Your task to perform on an android device: open chrome privacy settings Image 0: 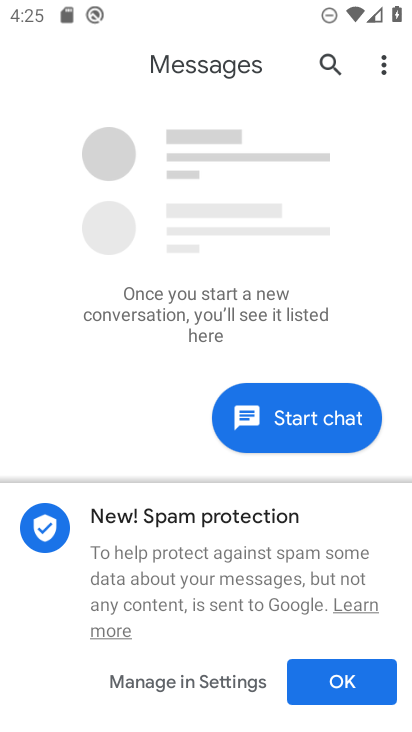
Step 0: press home button
Your task to perform on an android device: open chrome privacy settings Image 1: 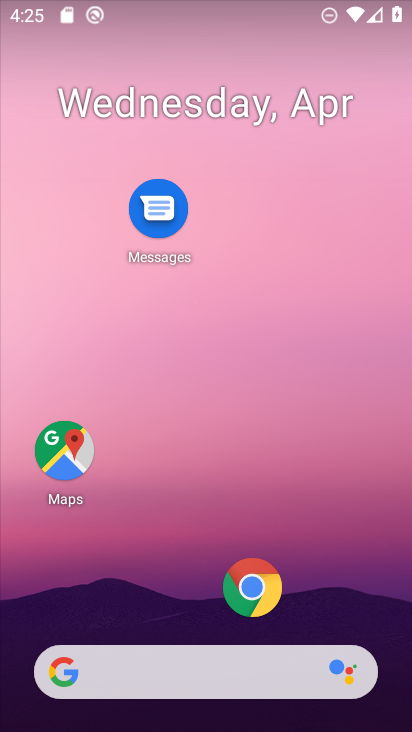
Step 1: click (242, 574)
Your task to perform on an android device: open chrome privacy settings Image 2: 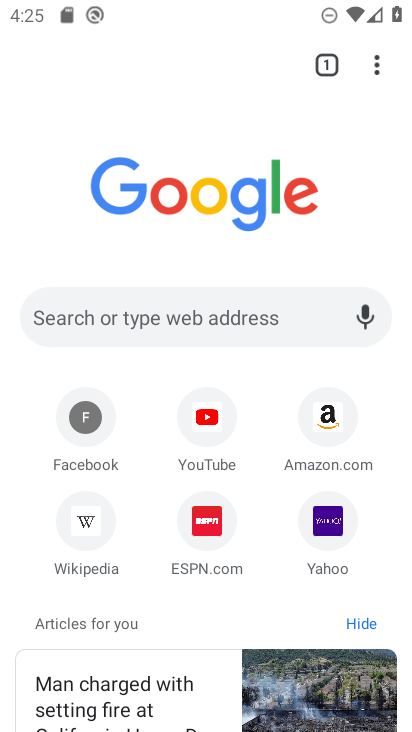
Step 2: click (379, 58)
Your task to perform on an android device: open chrome privacy settings Image 3: 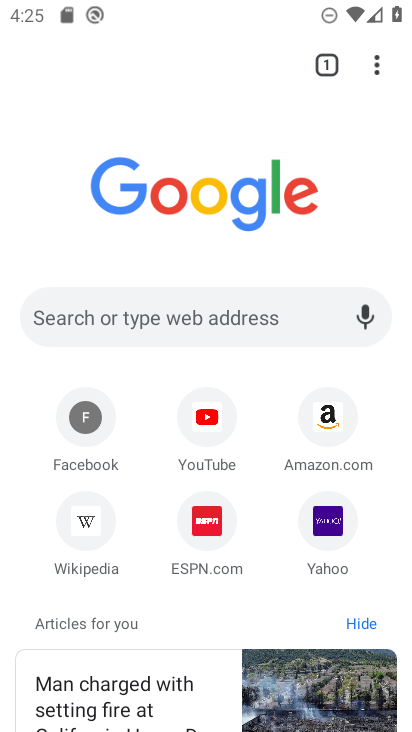
Step 3: click (379, 70)
Your task to perform on an android device: open chrome privacy settings Image 4: 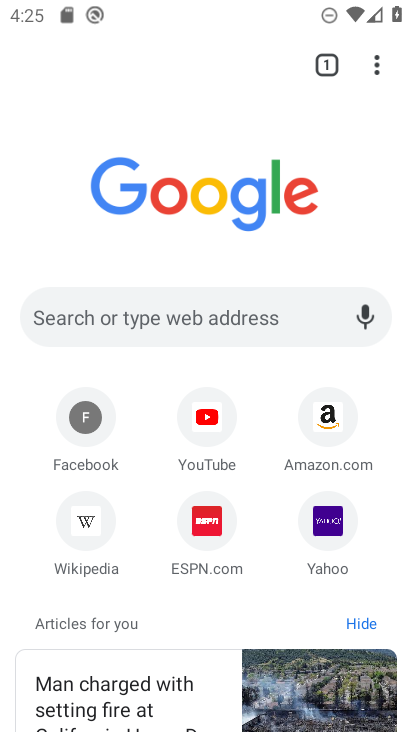
Step 4: click (379, 70)
Your task to perform on an android device: open chrome privacy settings Image 5: 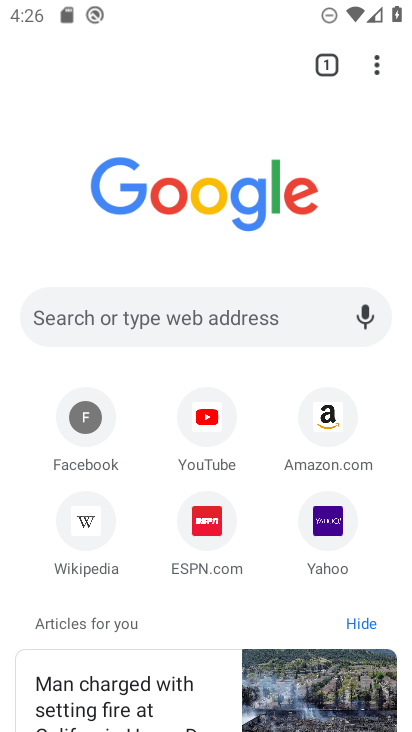
Step 5: drag from (371, 64) to (161, 541)
Your task to perform on an android device: open chrome privacy settings Image 6: 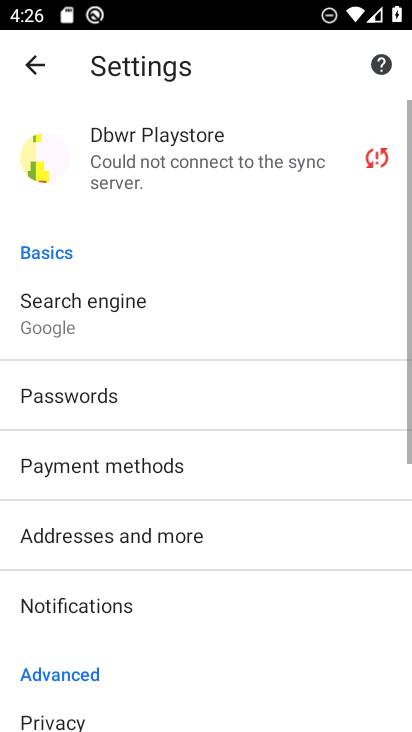
Step 6: drag from (159, 670) to (186, 297)
Your task to perform on an android device: open chrome privacy settings Image 7: 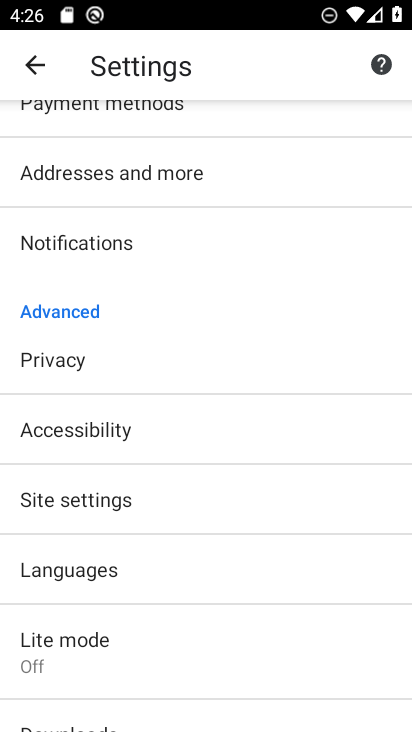
Step 7: click (86, 361)
Your task to perform on an android device: open chrome privacy settings Image 8: 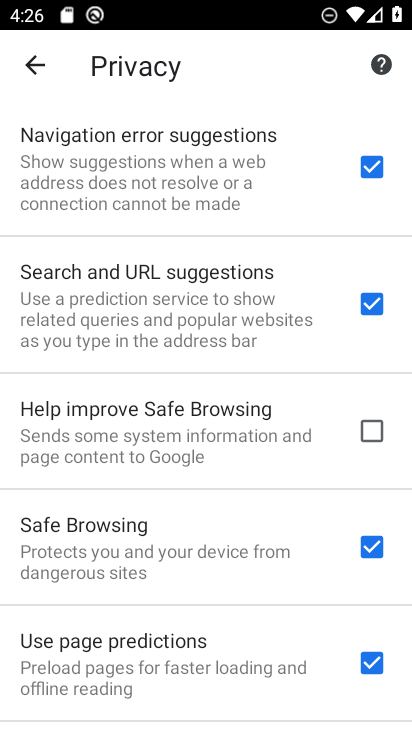
Step 8: task complete